Your task to perform on an android device: turn on airplane mode Image 0: 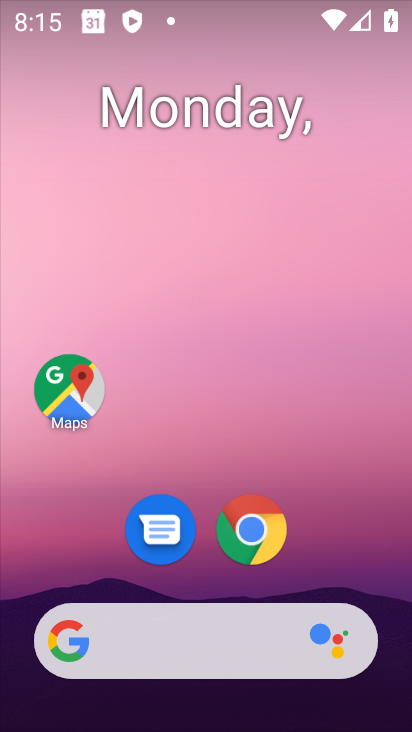
Step 0: drag from (290, 685) to (298, 268)
Your task to perform on an android device: turn on airplane mode Image 1: 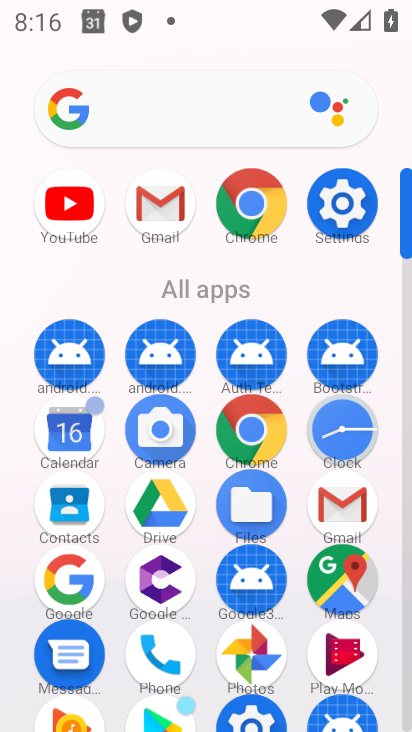
Step 1: click (334, 223)
Your task to perform on an android device: turn on airplane mode Image 2: 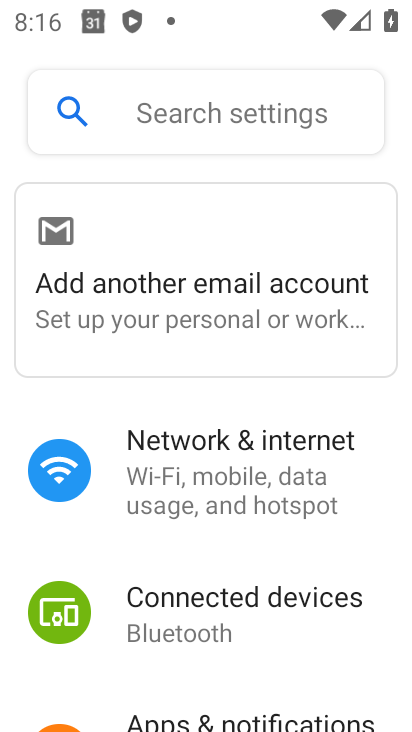
Step 2: click (275, 442)
Your task to perform on an android device: turn on airplane mode Image 3: 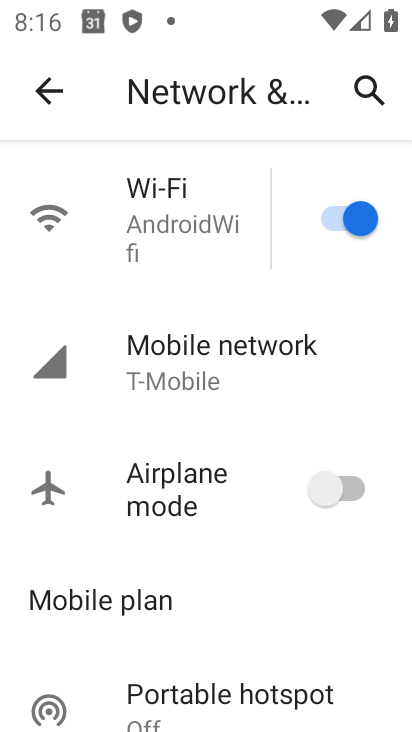
Step 3: click (285, 486)
Your task to perform on an android device: turn on airplane mode Image 4: 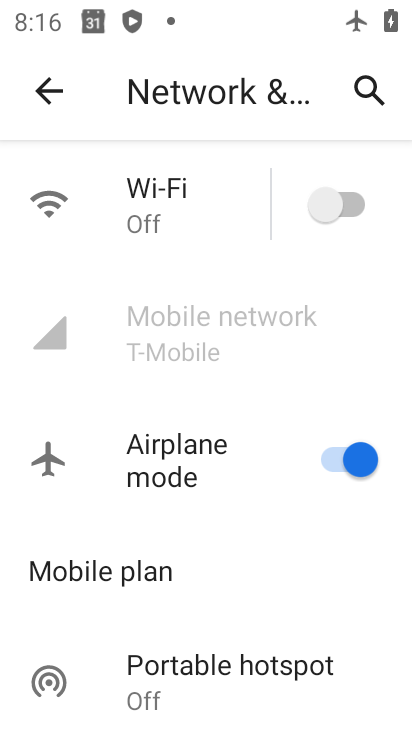
Step 4: task complete